Your task to perform on an android device: What's the news in the Philippines? Image 0: 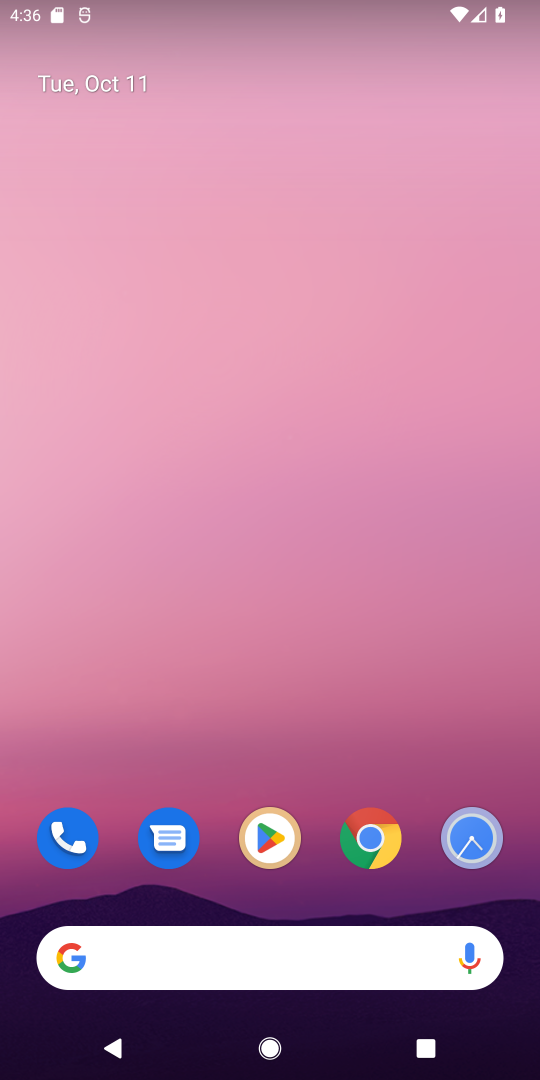
Step 0: click (396, 842)
Your task to perform on an android device: What's the news in the Philippines? Image 1: 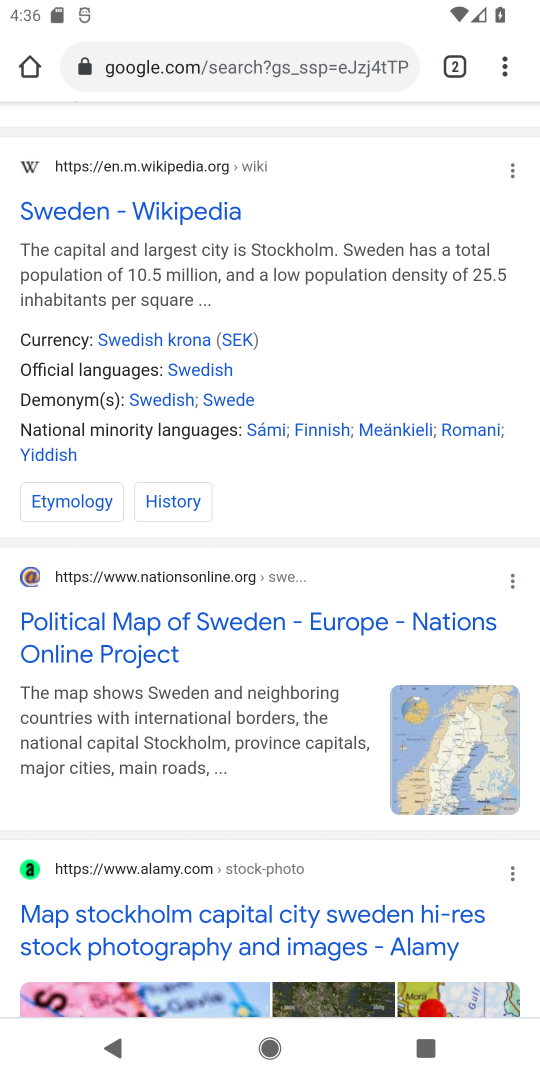
Step 1: click (340, 61)
Your task to perform on an android device: What's the news in the Philippines? Image 2: 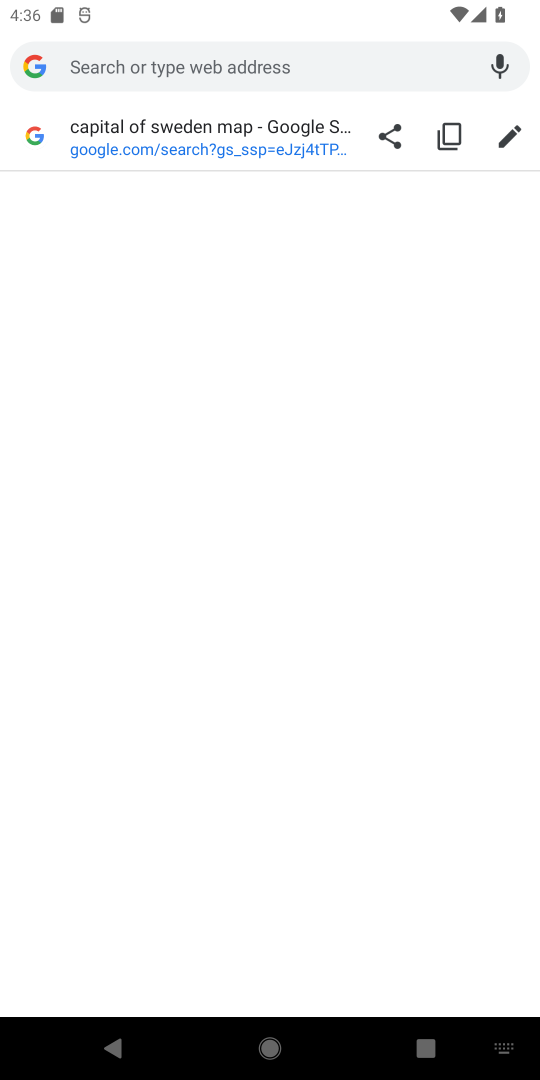
Step 2: type "news in the phillppines"
Your task to perform on an android device: What's the news in the Philippines? Image 3: 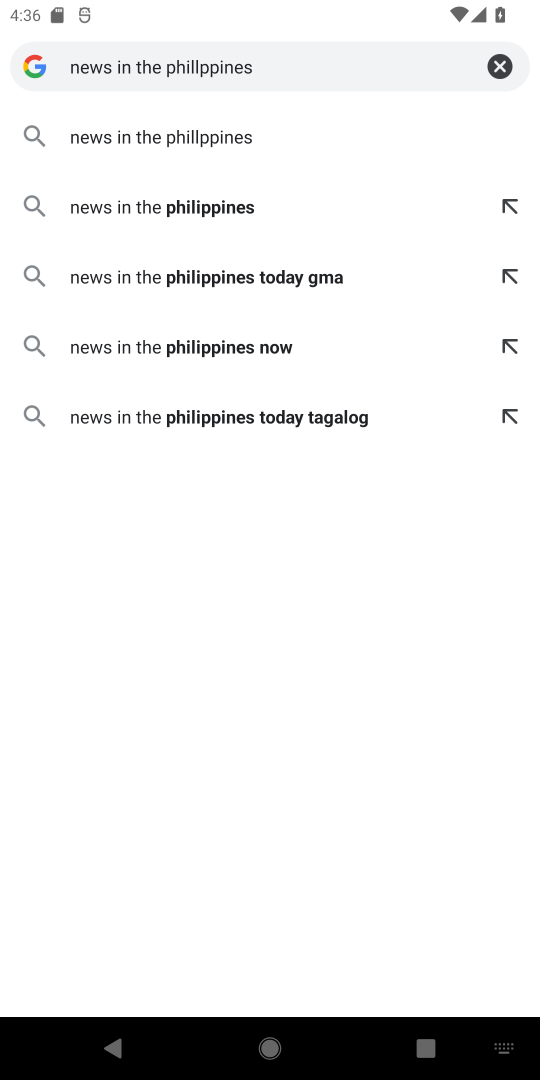
Step 3: click (188, 205)
Your task to perform on an android device: What's the news in the Philippines? Image 4: 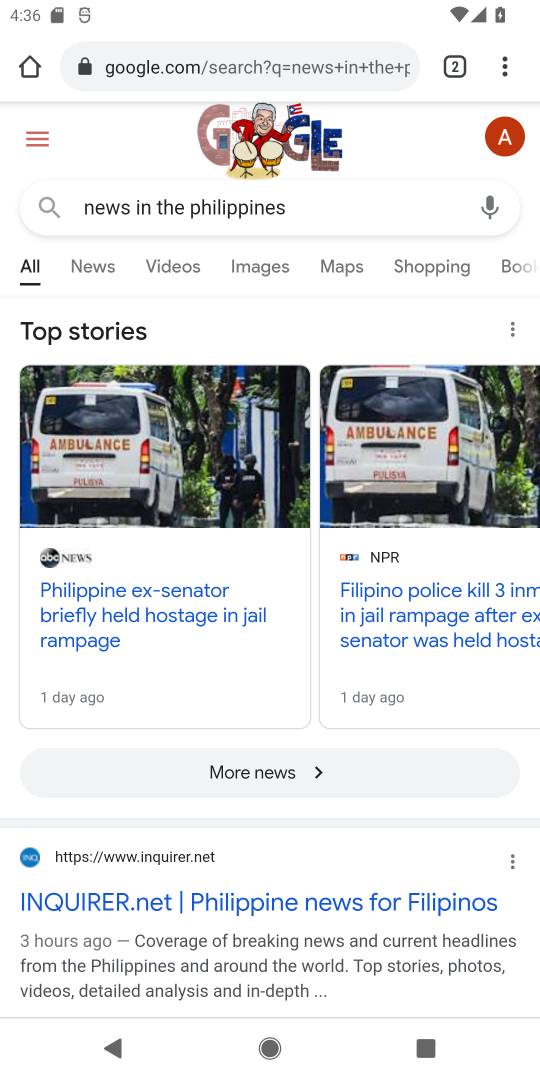
Step 4: drag from (267, 848) to (275, 492)
Your task to perform on an android device: What's the news in the Philippines? Image 5: 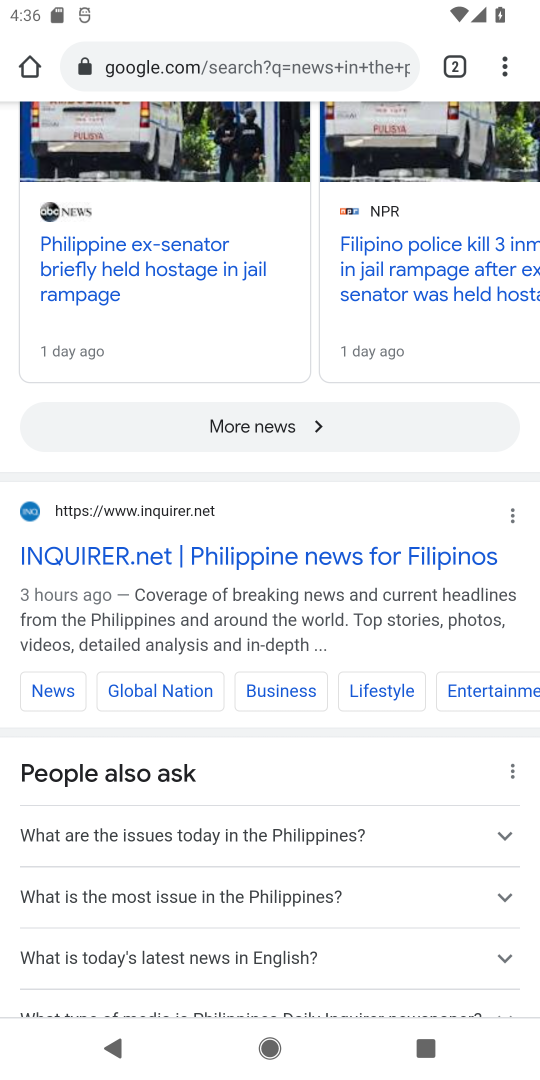
Step 5: drag from (215, 833) to (270, 417)
Your task to perform on an android device: What's the news in the Philippines? Image 6: 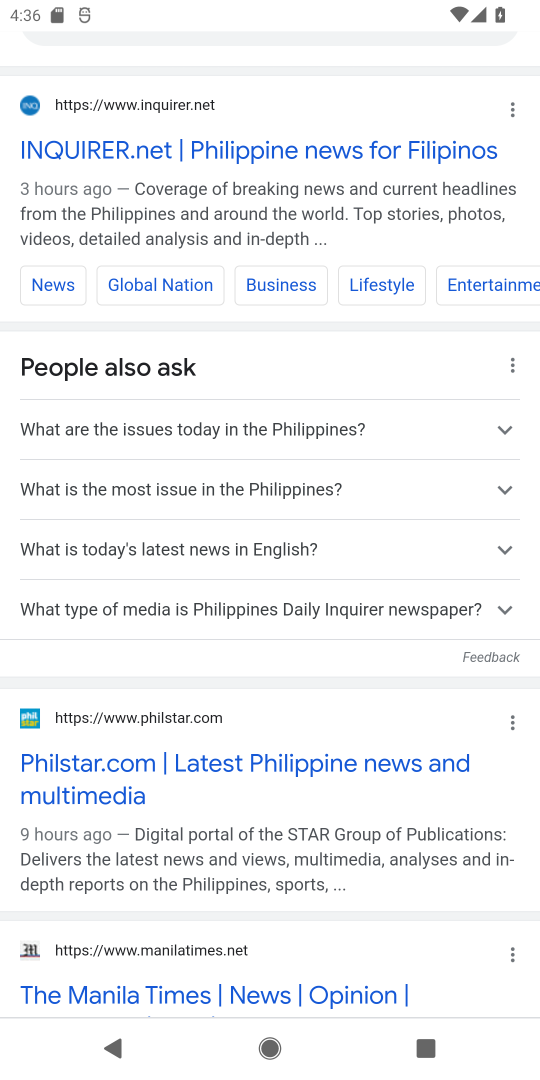
Step 6: drag from (240, 902) to (242, 620)
Your task to perform on an android device: What's the news in the Philippines? Image 7: 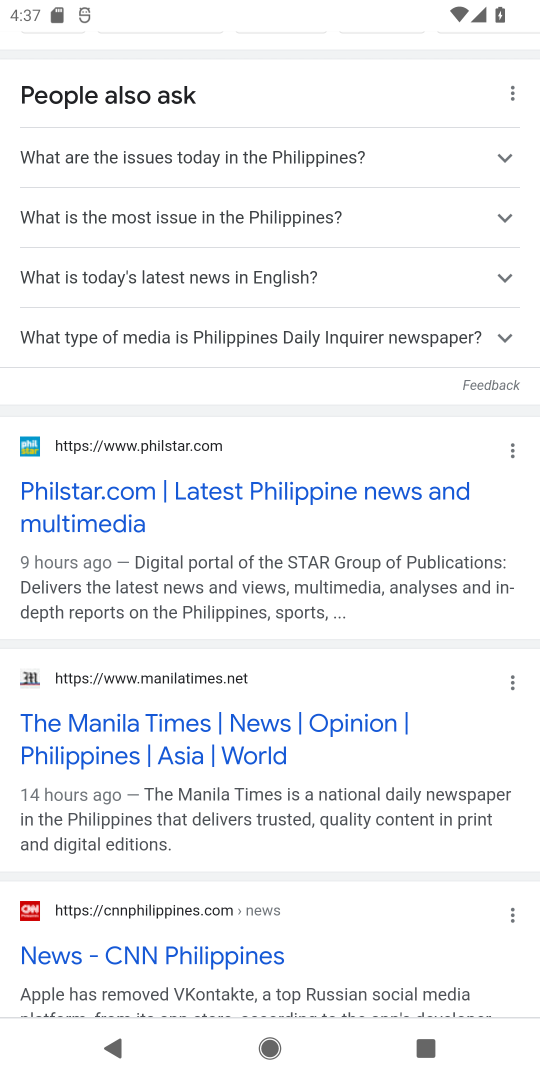
Step 7: click (194, 955)
Your task to perform on an android device: What's the news in the Philippines? Image 8: 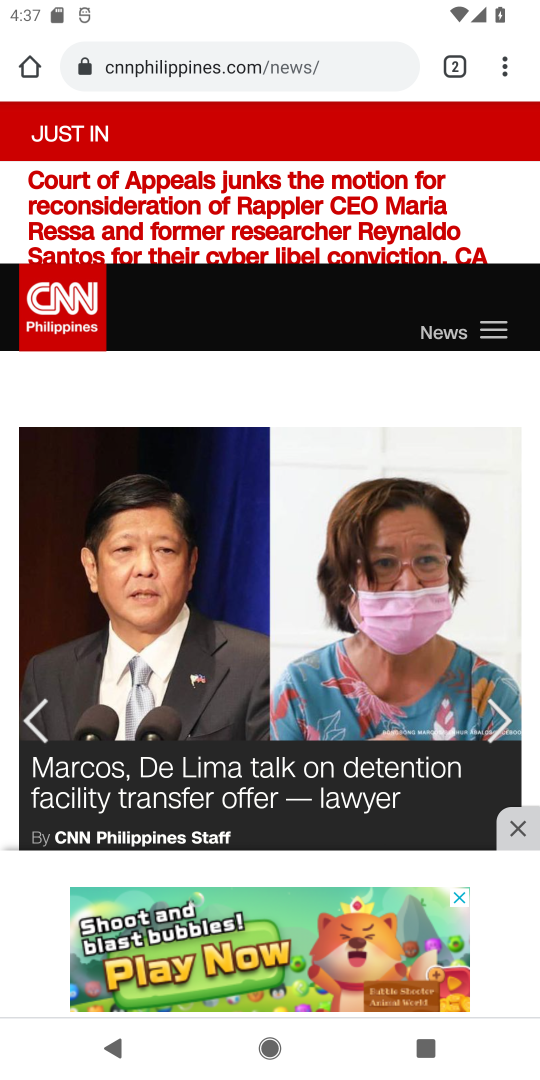
Step 8: drag from (288, 879) to (308, 252)
Your task to perform on an android device: What's the news in the Philippines? Image 9: 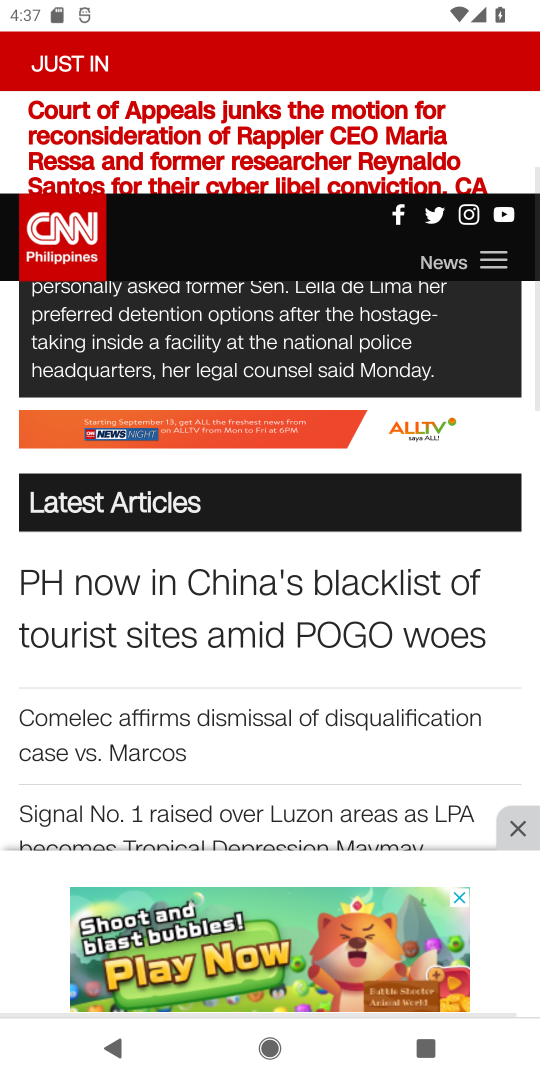
Step 9: click (519, 831)
Your task to perform on an android device: What's the news in the Philippines? Image 10: 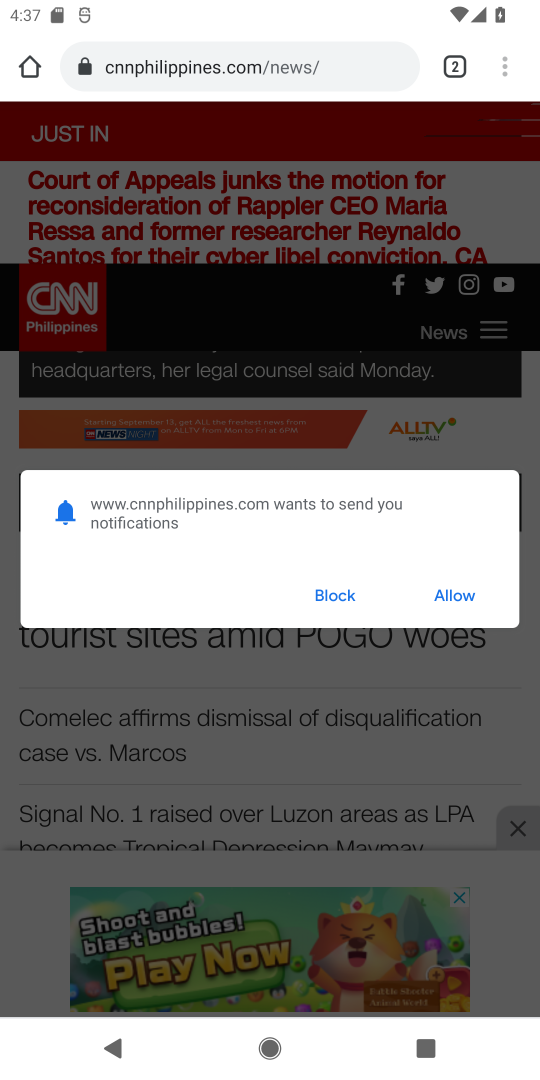
Step 10: click (338, 588)
Your task to perform on an android device: What's the news in the Philippines? Image 11: 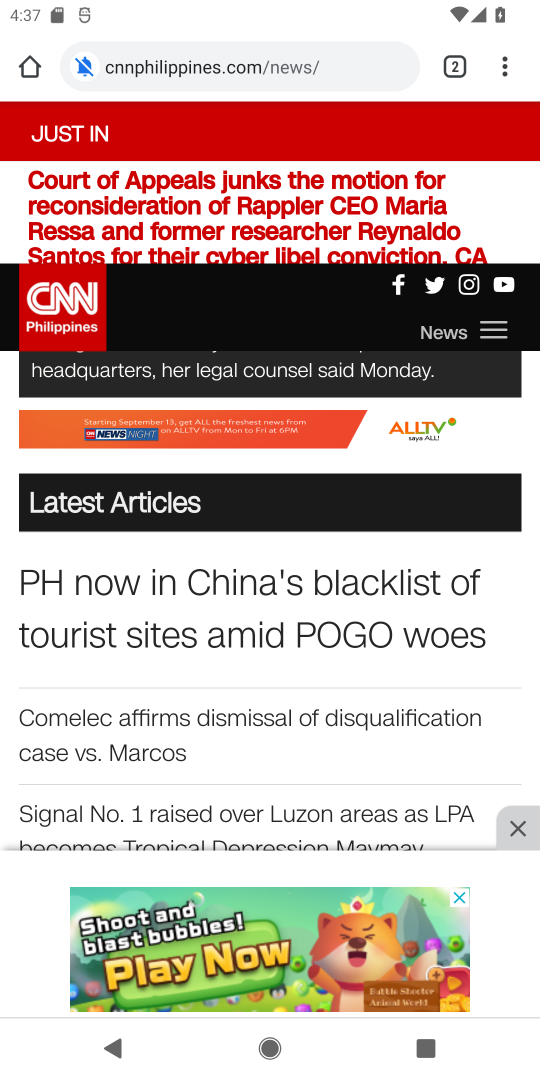
Step 11: click (513, 828)
Your task to perform on an android device: What's the news in the Philippines? Image 12: 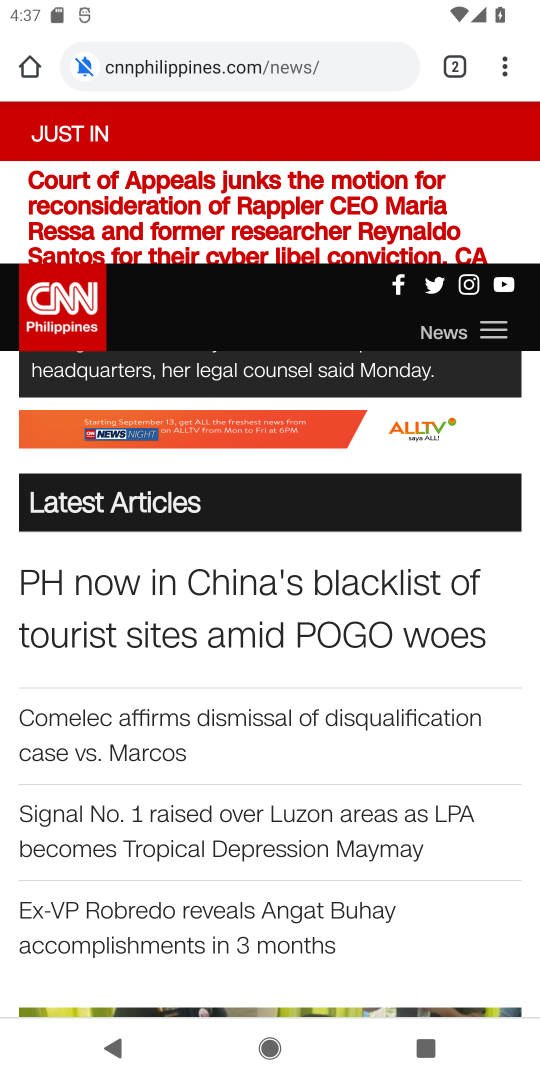
Step 12: task complete